Your task to perform on an android device: toggle data saver in the chrome app Image 0: 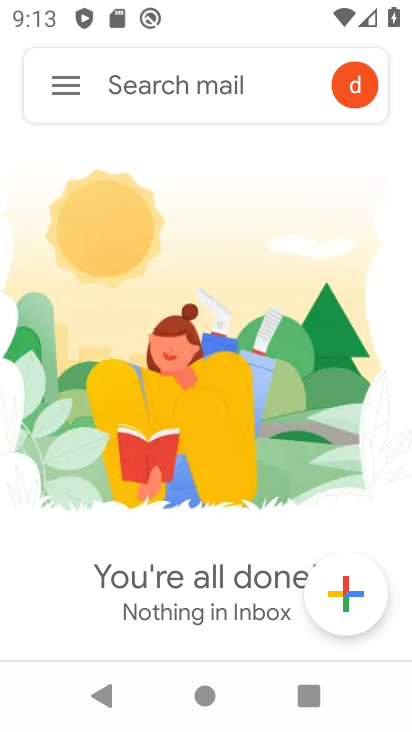
Step 0: press home button
Your task to perform on an android device: toggle data saver in the chrome app Image 1: 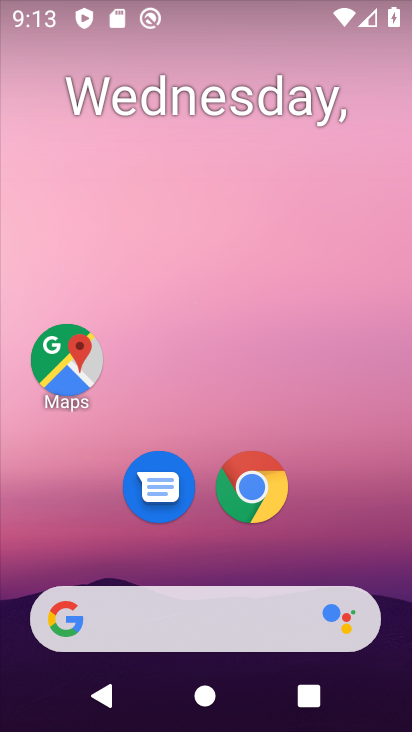
Step 1: click (262, 488)
Your task to perform on an android device: toggle data saver in the chrome app Image 2: 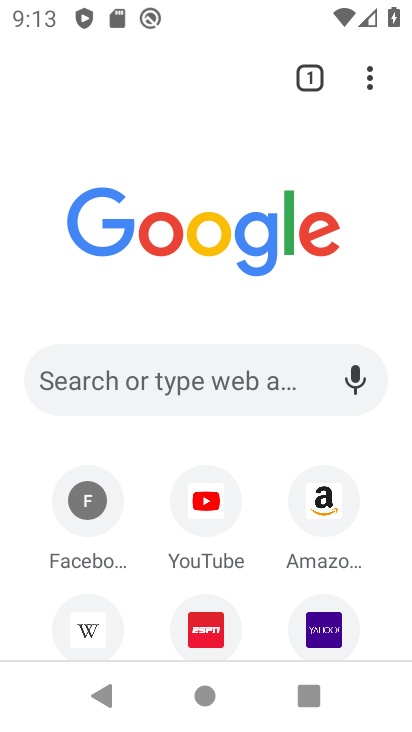
Step 2: click (387, 66)
Your task to perform on an android device: toggle data saver in the chrome app Image 3: 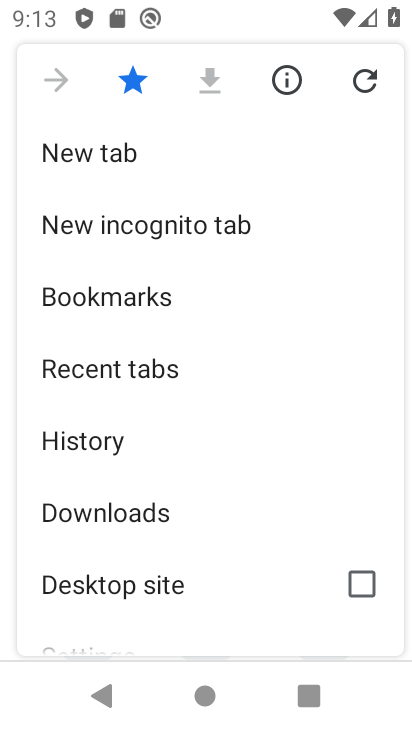
Step 3: drag from (204, 588) to (279, 39)
Your task to perform on an android device: toggle data saver in the chrome app Image 4: 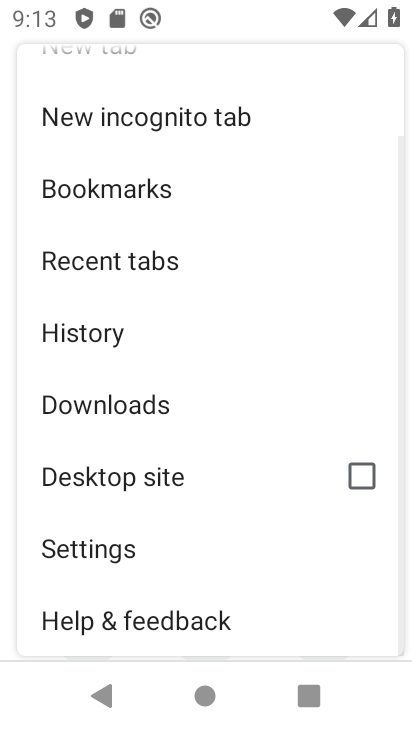
Step 4: click (150, 558)
Your task to perform on an android device: toggle data saver in the chrome app Image 5: 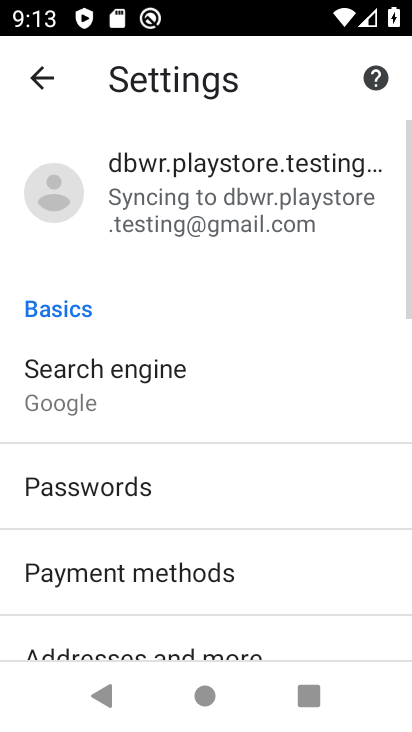
Step 5: drag from (264, 574) to (251, 134)
Your task to perform on an android device: toggle data saver in the chrome app Image 6: 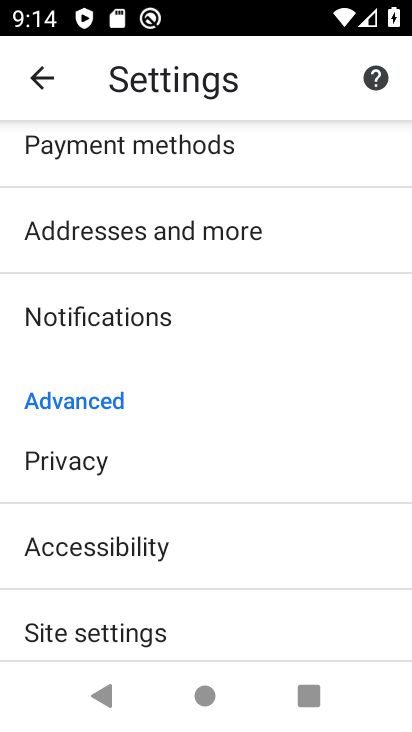
Step 6: drag from (264, 459) to (290, 212)
Your task to perform on an android device: toggle data saver in the chrome app Image 7: 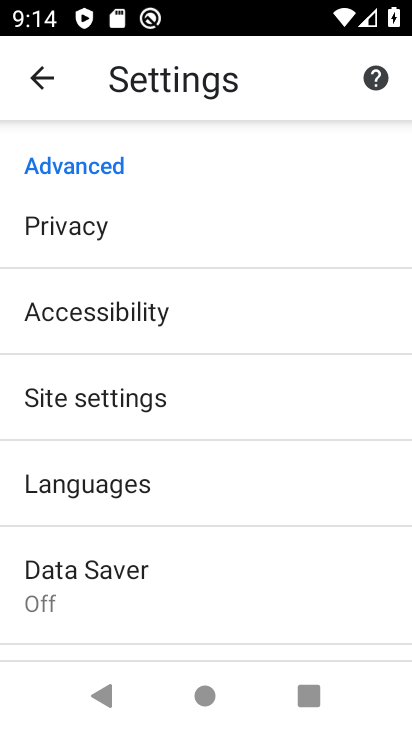
Step 7: click (167, 604)
Your task to perform on an android device: toggle data saver in the chrome app Image 8: 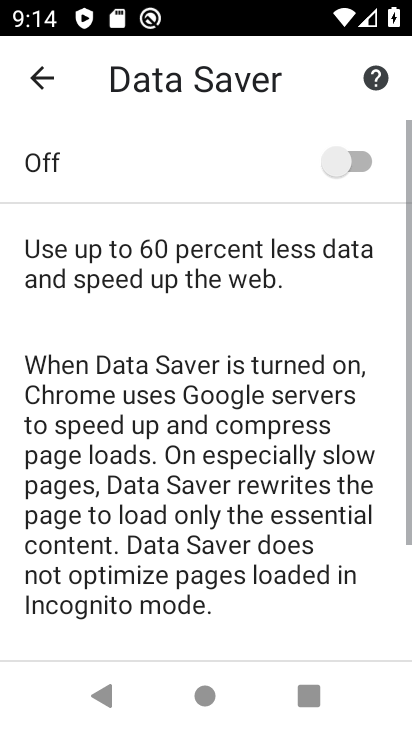
Step 8: click (353, 162)
Your task to perform on an android device: toggle data saver in the chrome app Image 9: 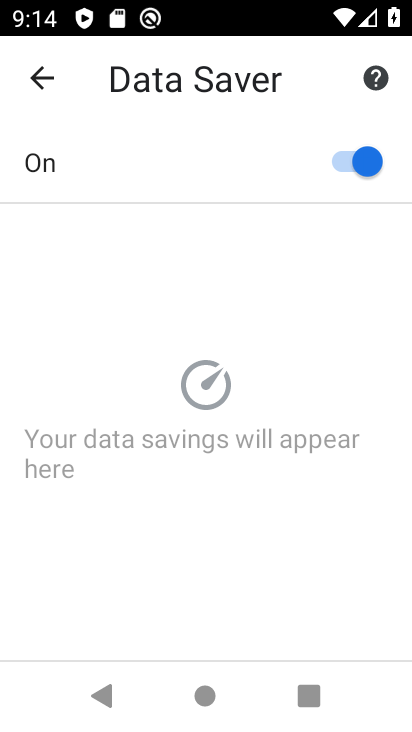
Step 9: task complete